Your task to perform on an android device: turn off notifications in google photos Image 0: 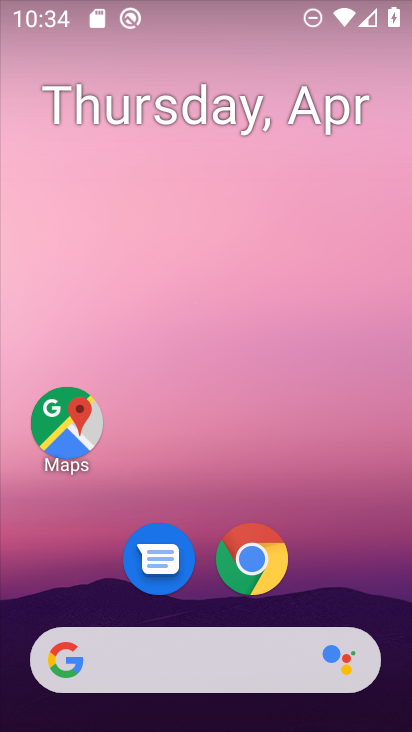
Step 0: drag from (254, 606) to (188, 170)
Your task to perform on an android device: turn off notifications in google photos Image 1: 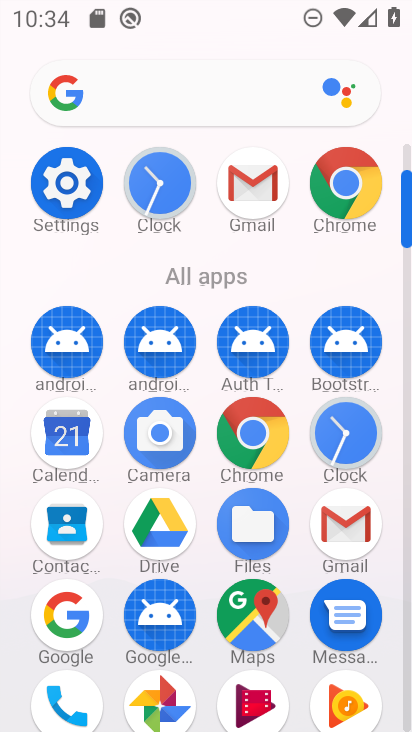
Step 1: click (158, 670)
Your task to perform on an android device: turn off notifications in google photos Image 2: 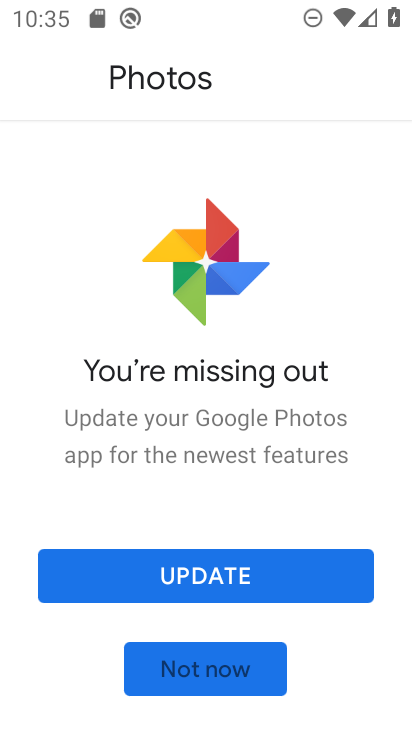
Step 2: click (237, 556)
Your task to perform on an android device: turn off notifications in google photos Image 3: 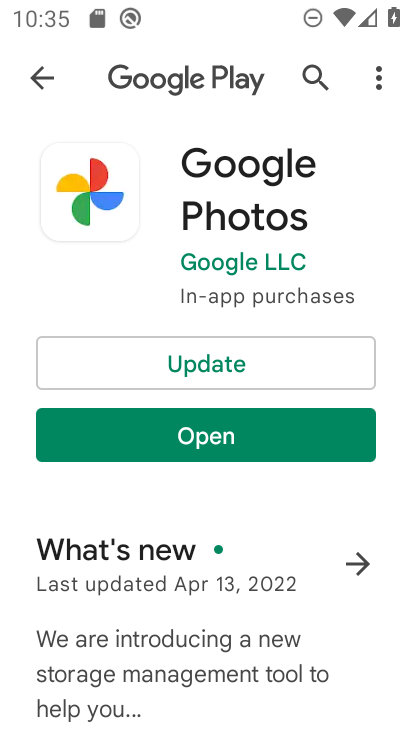
Step 3: click (194, 357)
Your task to perform on an android device: turn off notifications in google photos Image 4: 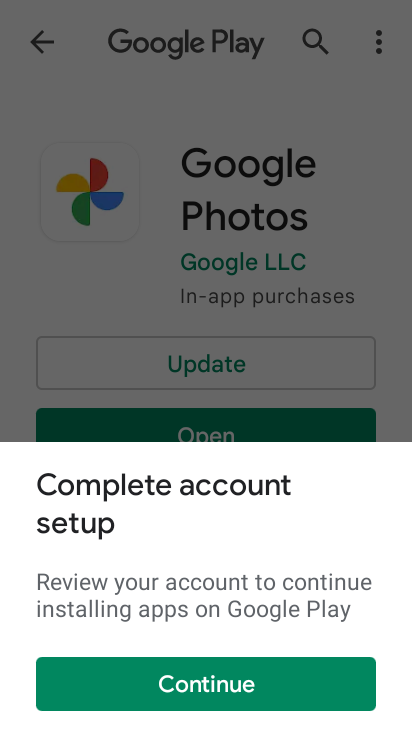
Step 4: click (202, 678)
Your task to perform on an android device: turn off notifications in google photos Image 5: 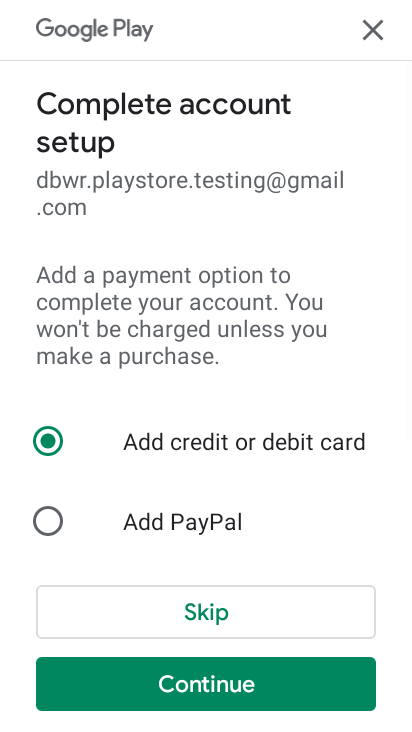
Step 5: click (361, 32)
Your task to perform on an android device: turn off notifications in google photos Image 6: 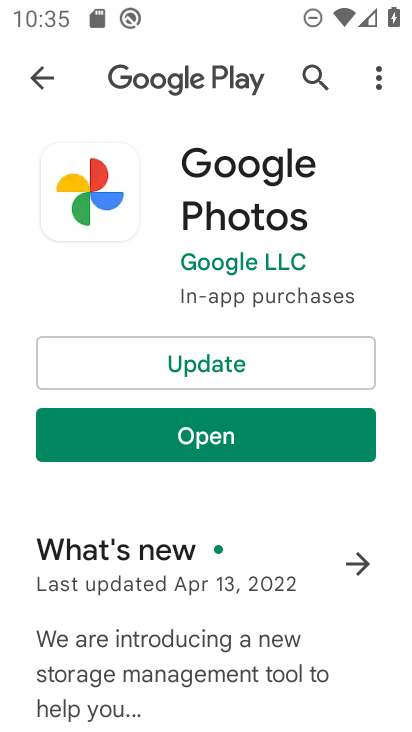
Step 6: click (238, 451)
Your task to perform on an android device: turn off notifications in google photos Image 7: 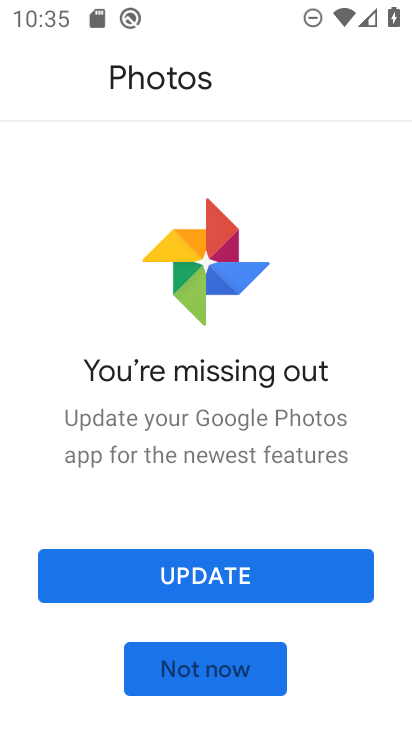
Step 7: click (218, 662)
Your task to perform on an android device: turn off notifications in google photos Image 8: 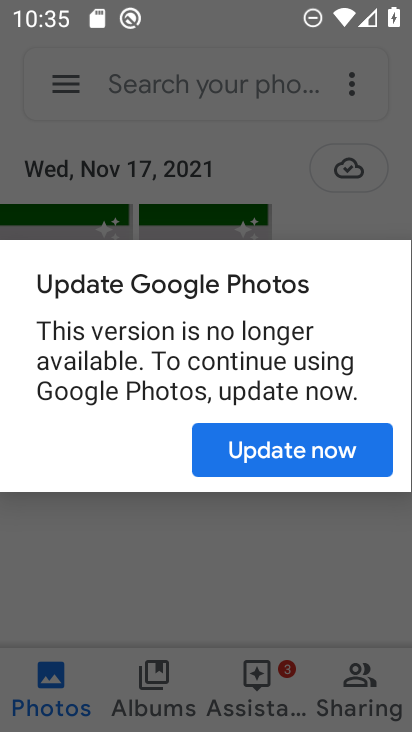
Step 8: click (300, 466)
Your task to perform on an android device: turn off notifications in google photos Image 9: 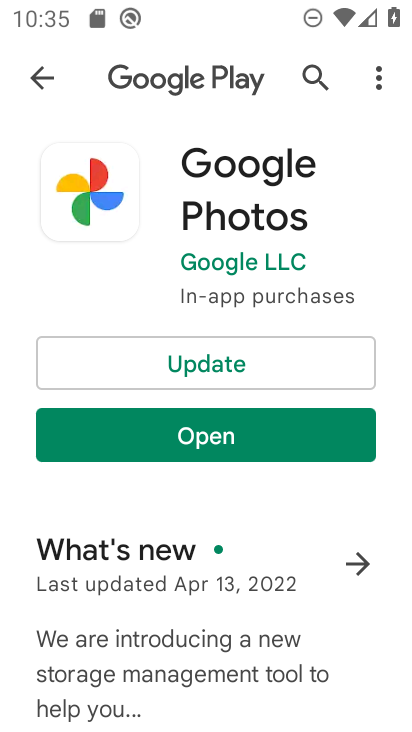
Step 9: click (180, 364)
Your task to perform on an android device: turn off notifications in google photos Image 10: 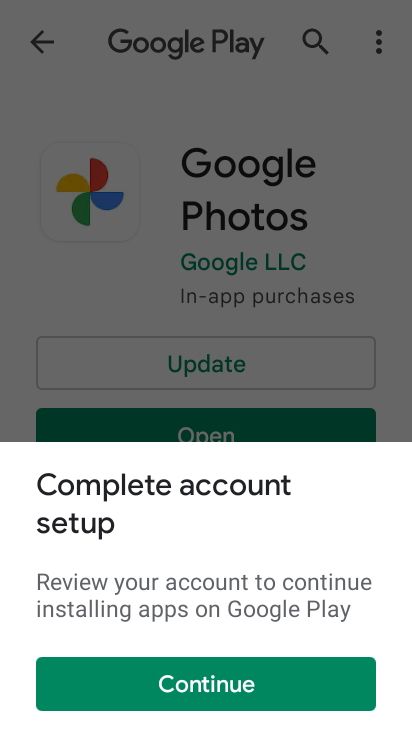
Step 10: click (187, 679)
Your task to perform on an android device: turn off notifications in google photos Image 11: 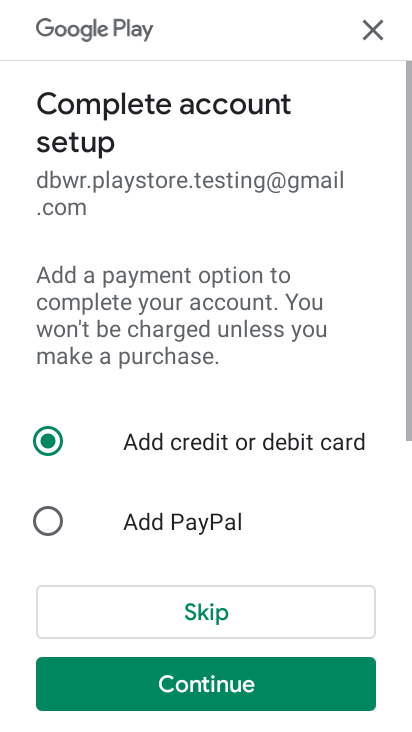
Step 11: click (224, 609)
Your task to perform on an android device: turn off notifications in google photos Image 12: 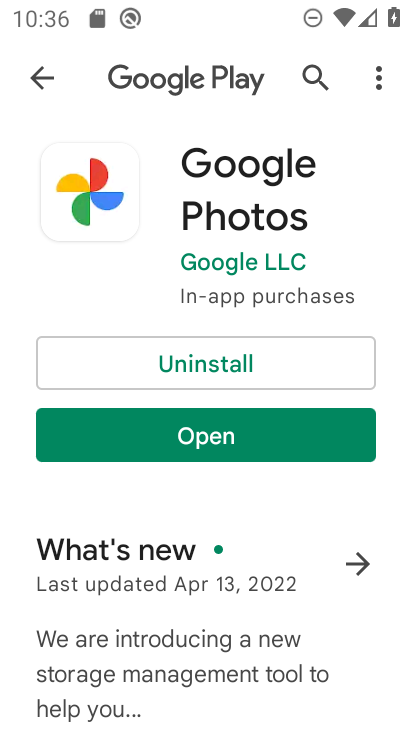
Step 12: click (203, 449)
Your task to perform on an android device: turn off notifications in google photos Image 13: 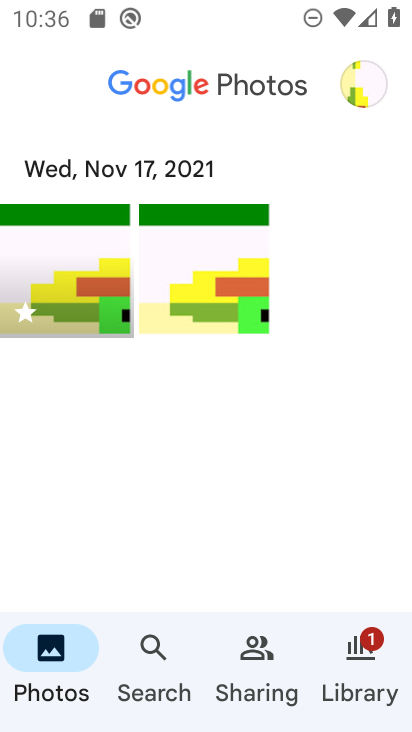
Step 13: click (355, 84)
Your task to perform on an android device: turn off notifications in google photos Image 14: 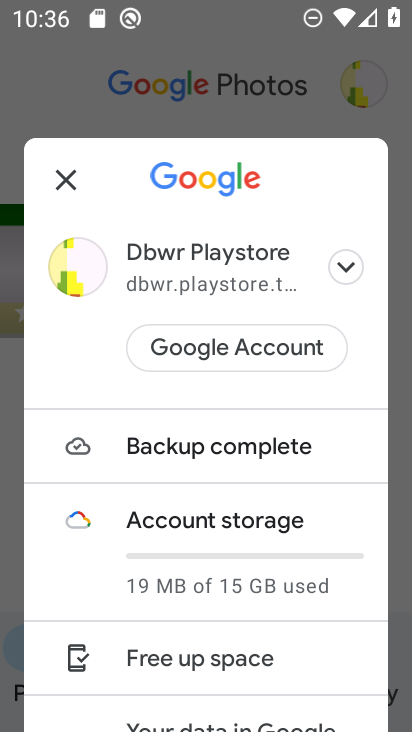
Step 14: drag from (166, 638) to (237, 422)
Your task to perform on an android device: turn off notifications in google photos Image 15: 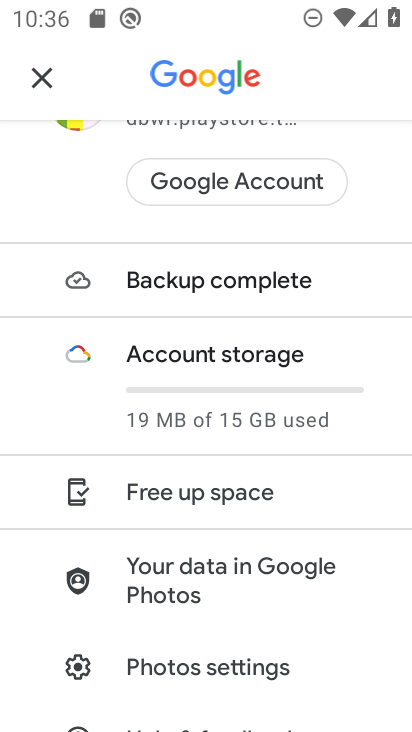
Step 15: drag from (186, 649) to (258, 464)
Your task to perform on an android device: turn off notifications in google photos Image 16: 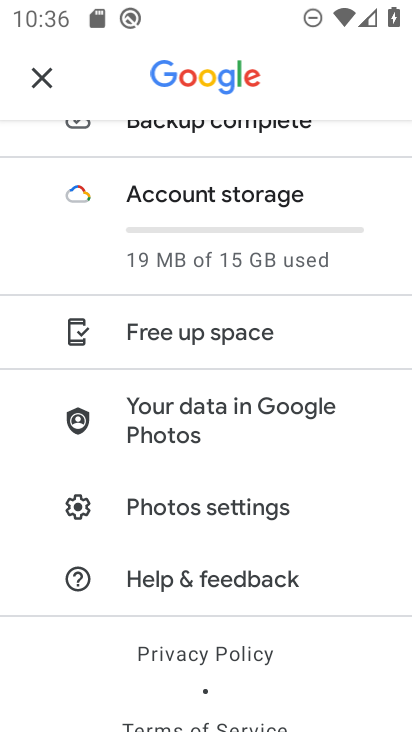
Step 16: click (196, 504)
Your task to perform on an android device: turn off notifications in google photos Image 17: 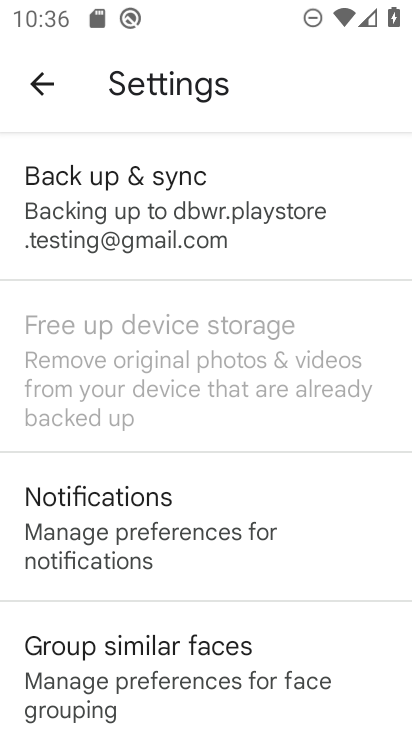
Step 17: click (188, 534)
Your task to perform on an android device: turn off notifications in google photos Image 18: 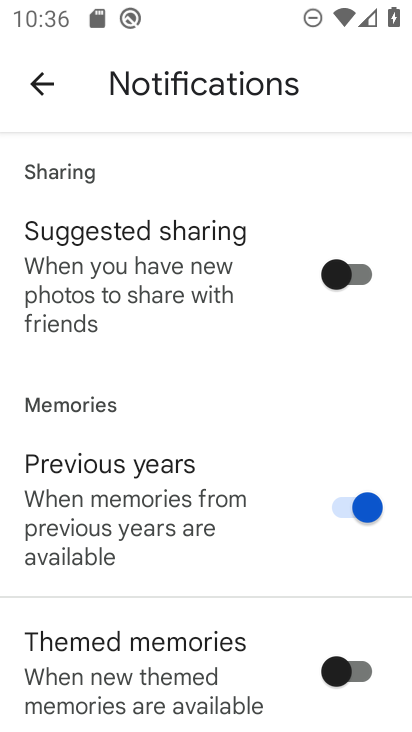
Step 18: drag from (180, 532) to (238, 181)
Your task to perform on an android device: turn off notifications in google photos Image 19: 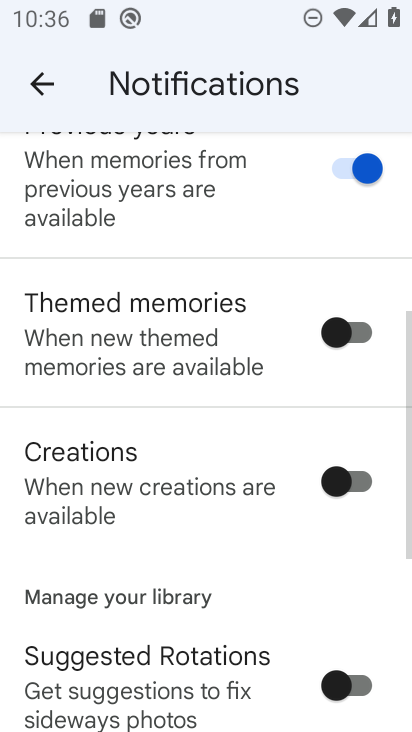
Step 19: drag from (161, 564) to (229, 149)
Your task to perform on an android device: turn off notifications in google photos Image 20: 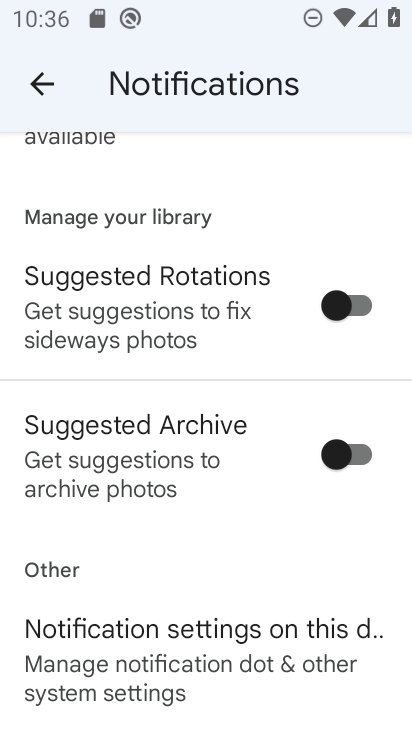
Step 20: click (104, 648)
Your task to perform on an android device: turn off notifications in google photos Image 21: 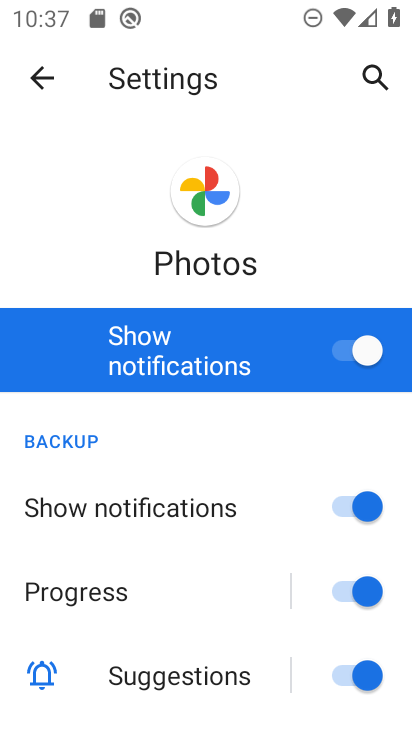
Step 21: click (338, 347)
Your task to perform on an android device: turn off notifications in google photos Image 22: 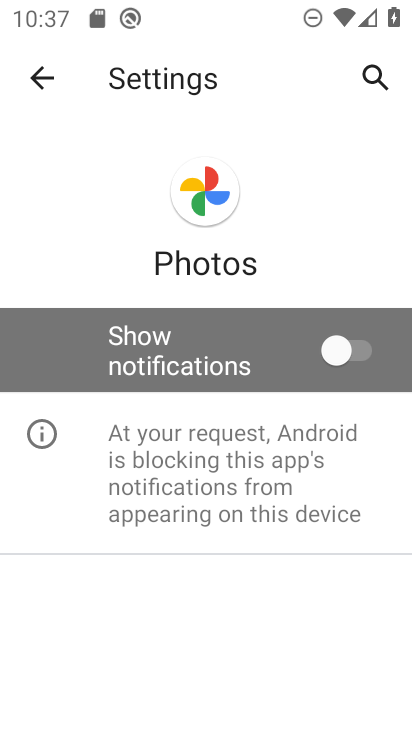
Step 22: task complete